Your task to perform on an android device: open chrome and create a bookmark for the current page Image 0: 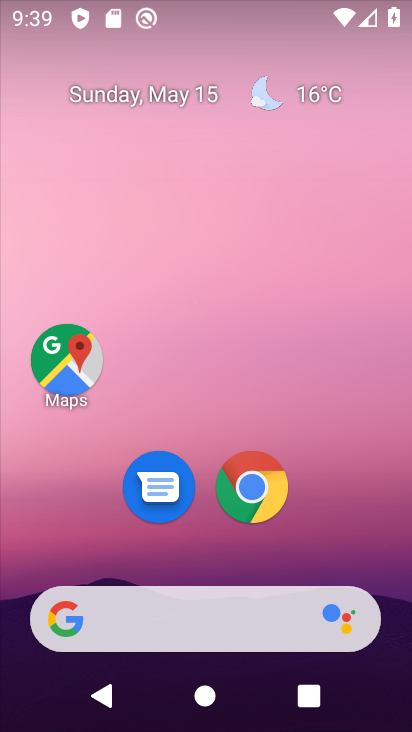
Step 0: click (244, 477)
Your task to perform on an android device: open chrome and create a bookmark for the current page Image 1: 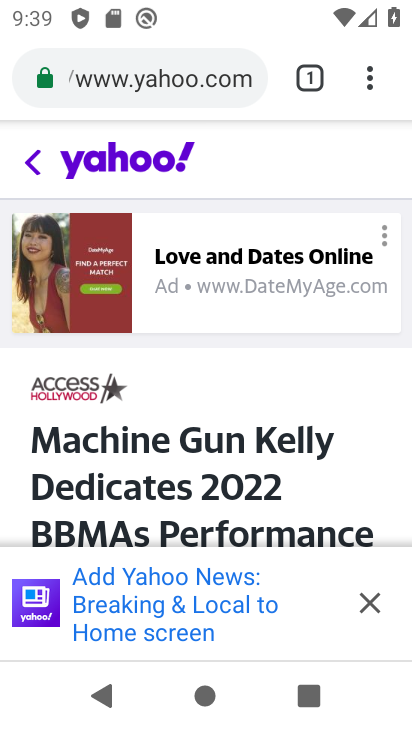
Step 1: click (371, 91)
Your task to perform on an android device: open chrome and create a bookmark for the current page Image 2: 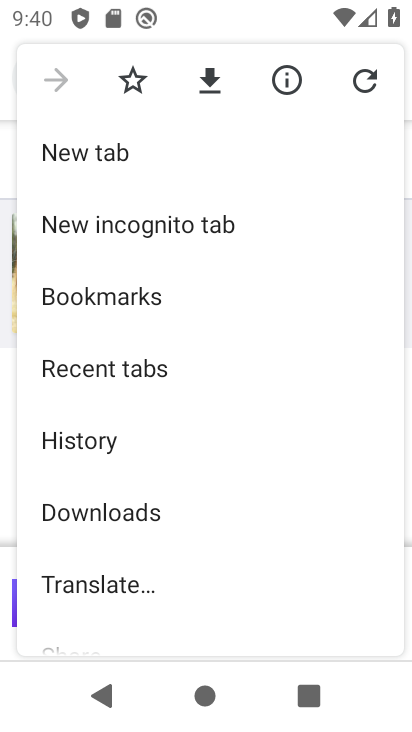
Step 2: click (141, 83)
Your task to perform on an android device: open chrome and create a bookmark for the current page Image 3: 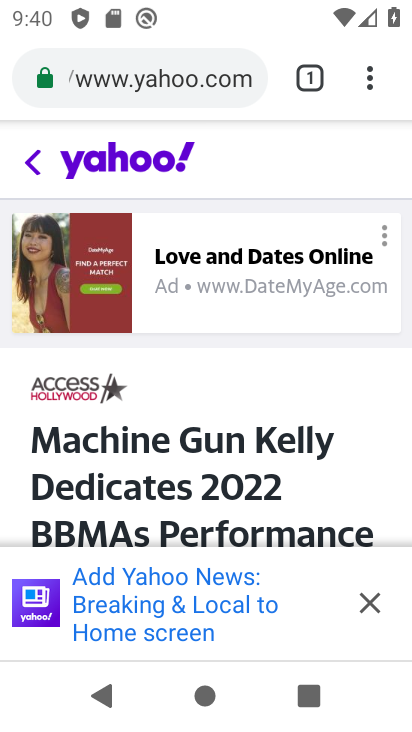
Step 3: task complete